Your task to perform on an android device: turn off airplane mode Image 0: 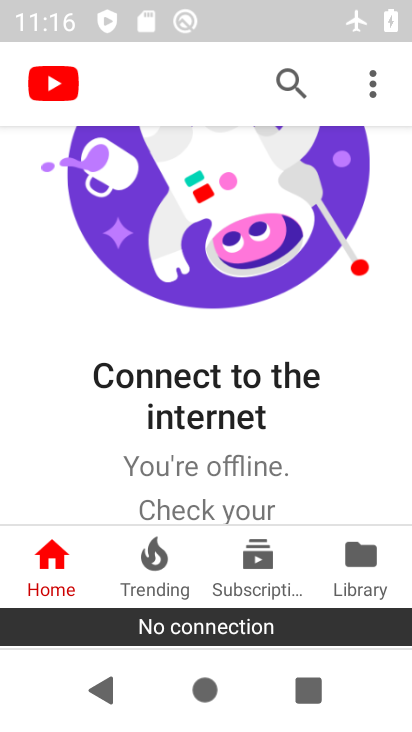
Step 0: press home button
Your task to perform on an android device: turn off airplane mode Image 1: 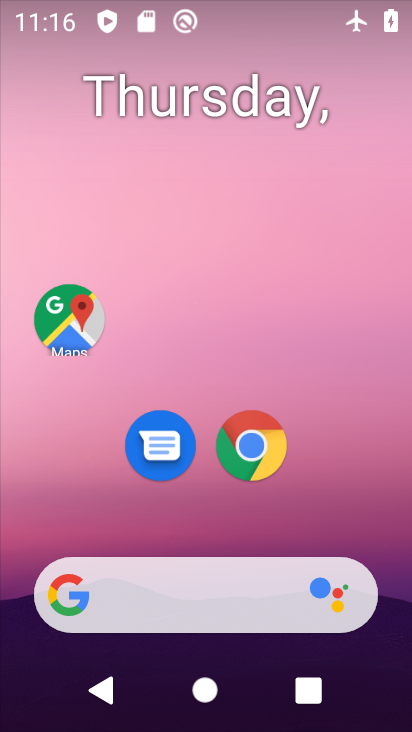
Step 1: drag from (195, 512) to (214, 58)
Your task to perform on an android device: turn off airplane mode Image 2: 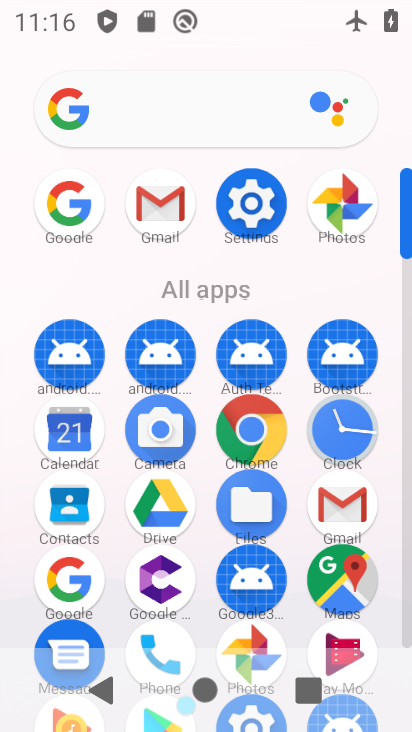
Step 2: click (253, 186)
Your task to perform on an android device: turn off airplane mode Image 3: 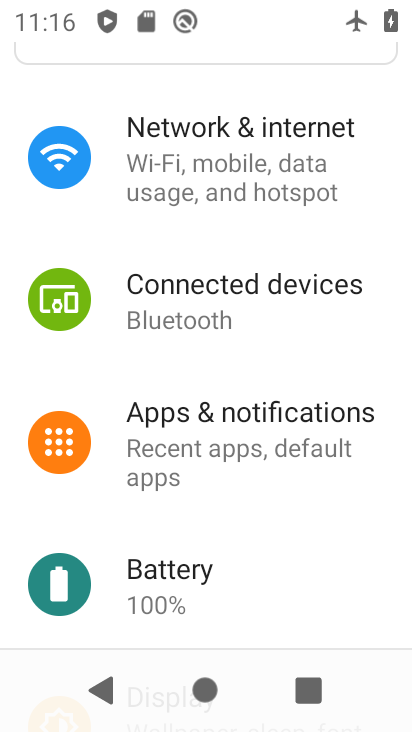
Step 3: click (222, 186)
Your task to perform on an android device: turn off airplane mode Image 4: 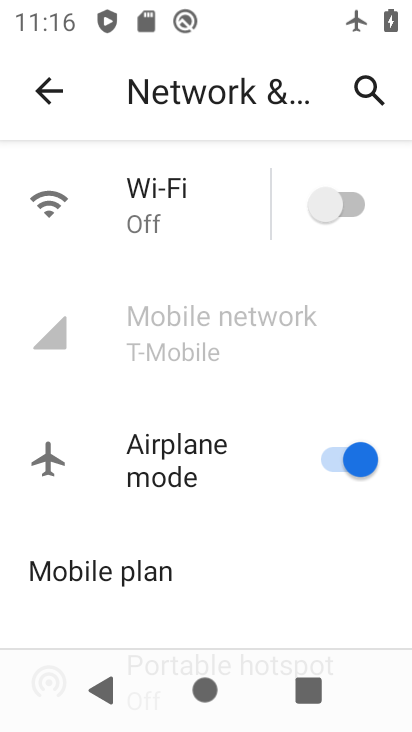
Step 4: click (324, 453)
Your task to perform on an android device: turn off airplane mode Image 5: 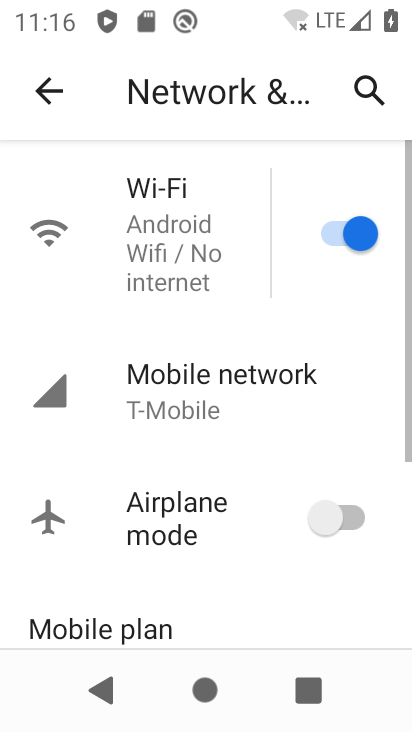
Step 5: task complete